Your task to perform on an android device: uninstall "Reddit" Image 0: 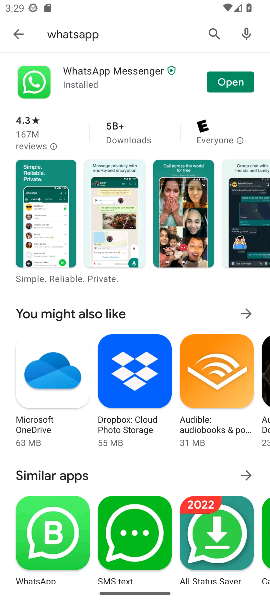
Step 0: click (218, 27)
Your task to perform on an android device: uninstall "Reddit" Image 1: 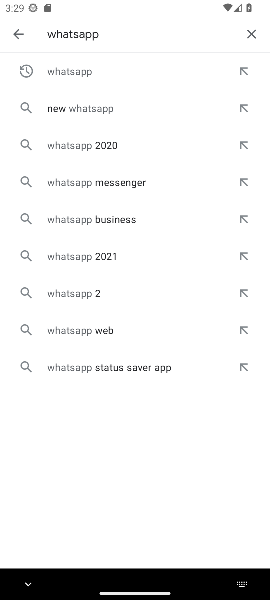
Step 1: click (251, 27)
Your task to perform on an android device: uninstall "Reddit" Image 2: 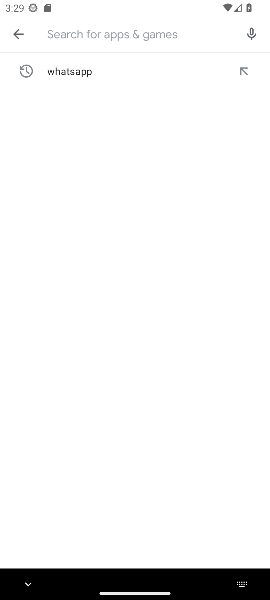
Step 2: type "reddit"
Your task to perform on an android device: uninstall "Reddit" Image 3: 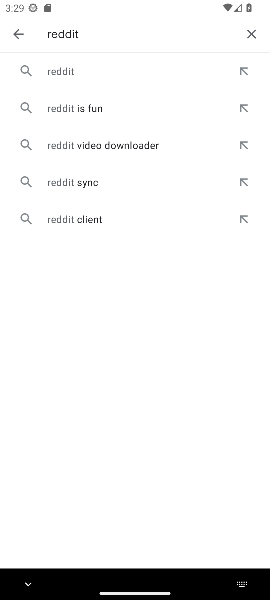
Step 3: click (195, 61)
Your task to perform on an android device: uninstall "Reddit" Image 4: 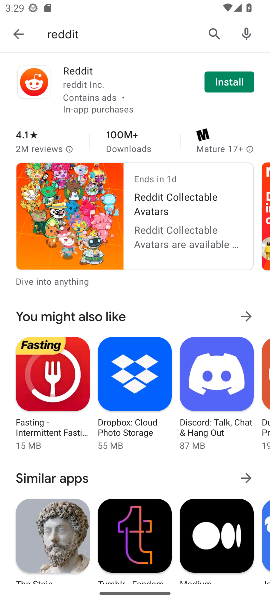
Step 4: task complete